Your task to perform on an android device: Turn on the flashlight Image 0: 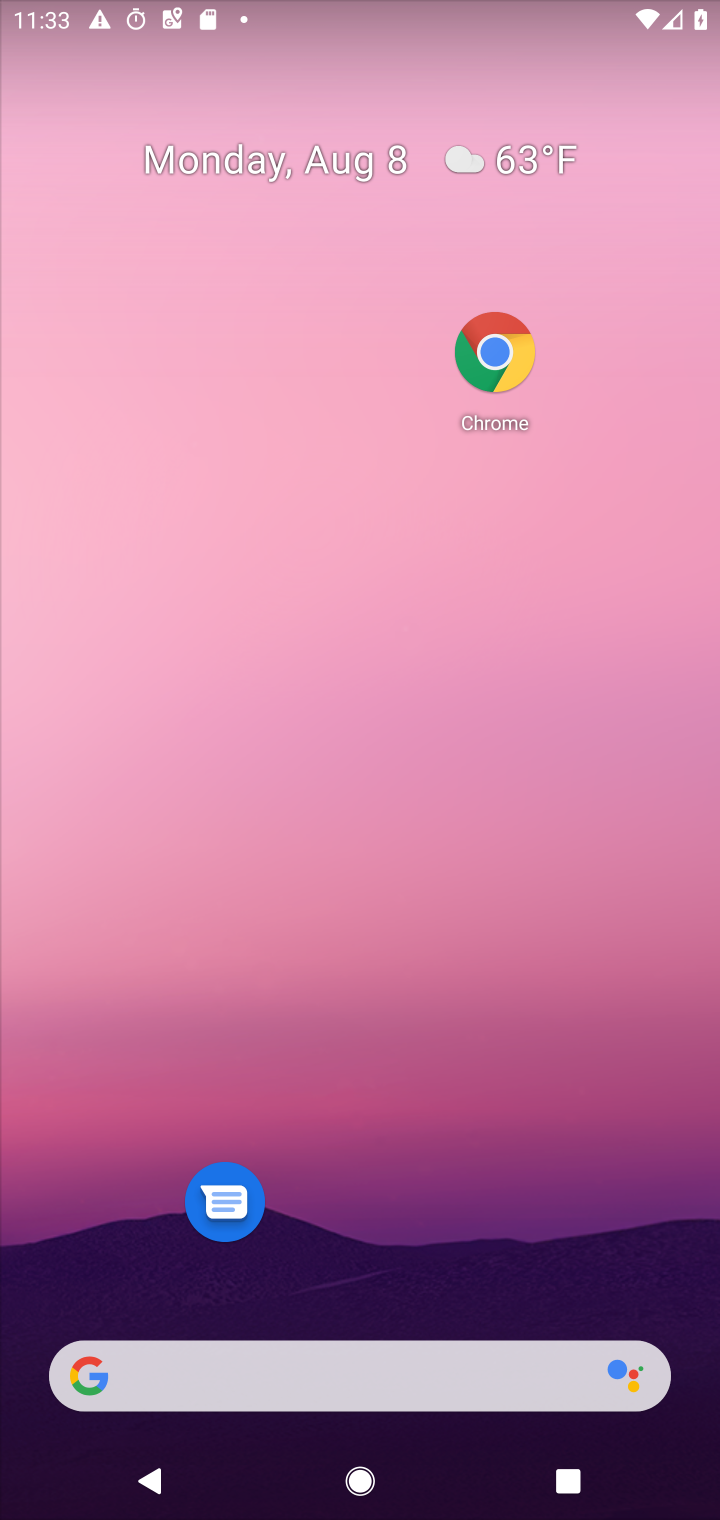
Step 0: drag from (367, 1094) to (324, 484)
Your task to perform on an android device: Turn on the flashlight Image 1: 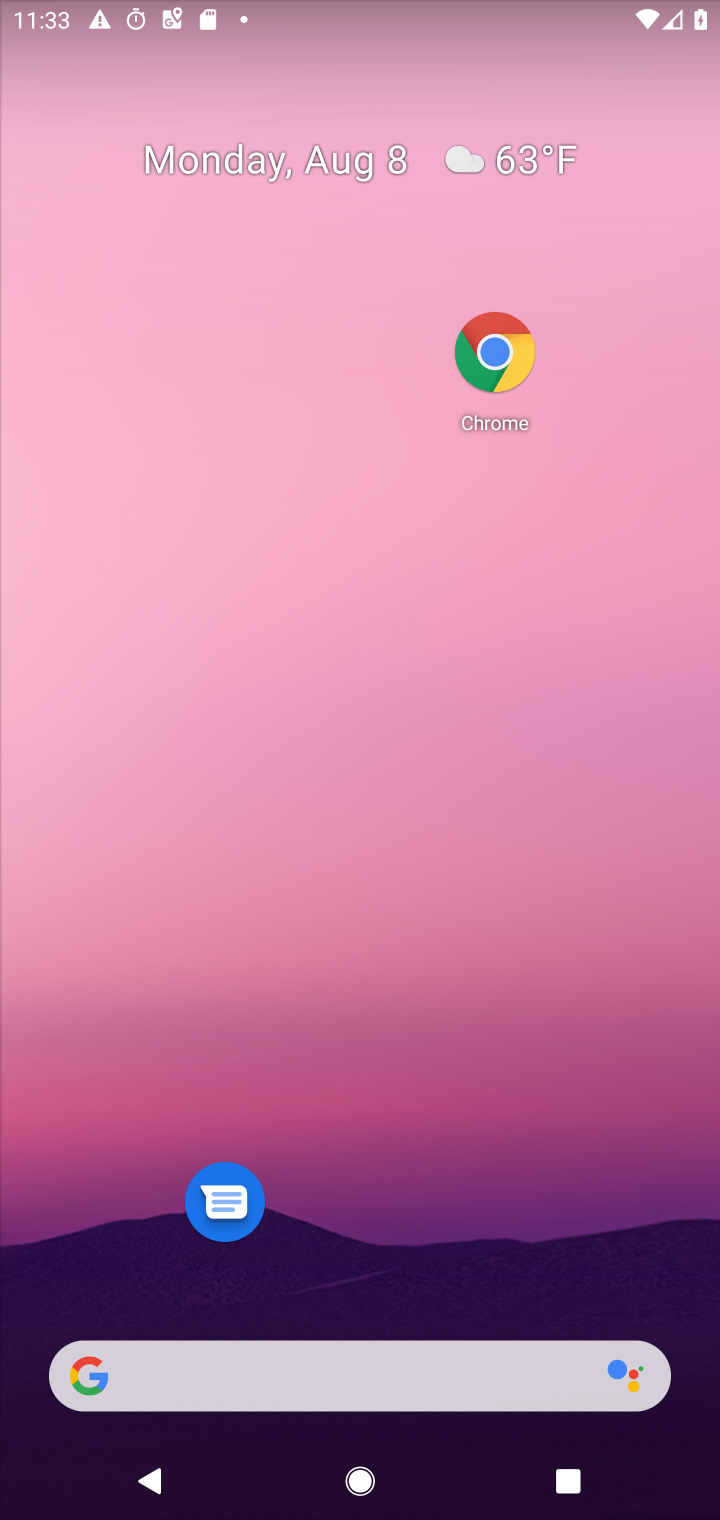
Step 1: task complete